Your task to perform on an android device: turn on translation in the chrome app Image 0: 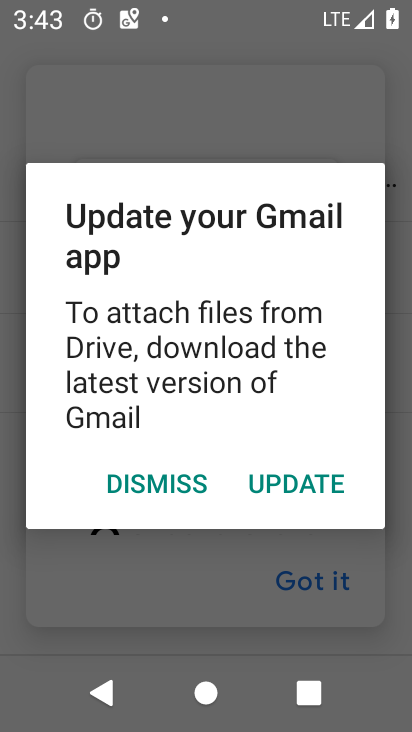
Step 0: press home button
Your task to perform on an android device: turn on translation in the chrome app Image 1: 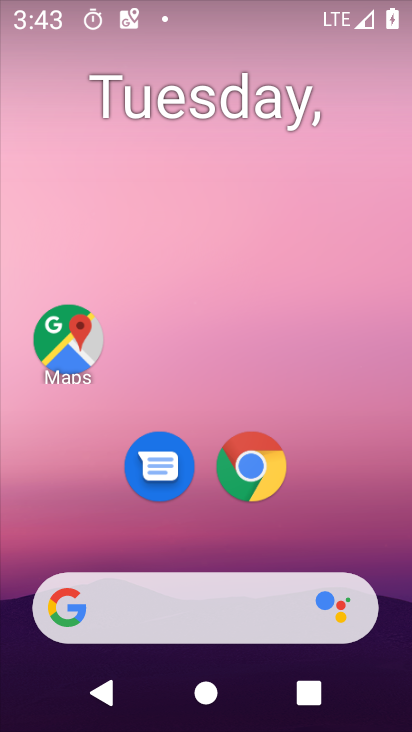
Step 1: drag from (343, 522) to (335, 132)
Your task to perform on an android device: turn on translation in the chrome app Image 2: 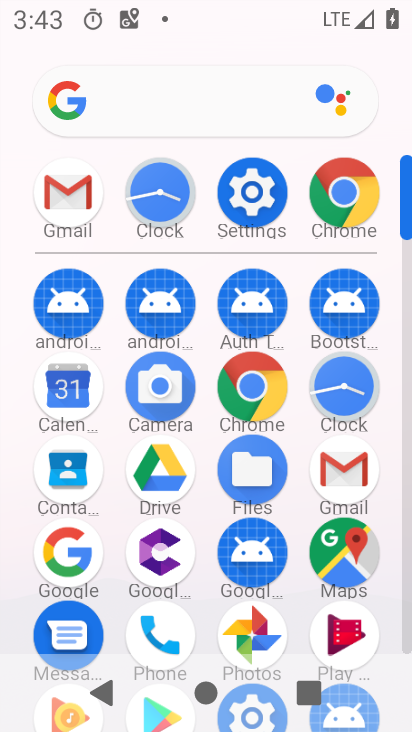
Step 2: click (272, 391)
Your task to perform on an android device: turn on translation in the chrome app Image 3: 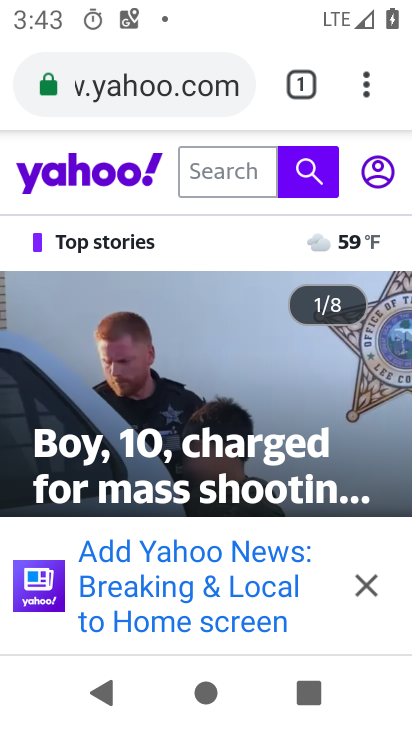
Step 3: click (368, 94)
Your task to perform on an android device: turn on translation in the chrome app Image 4: 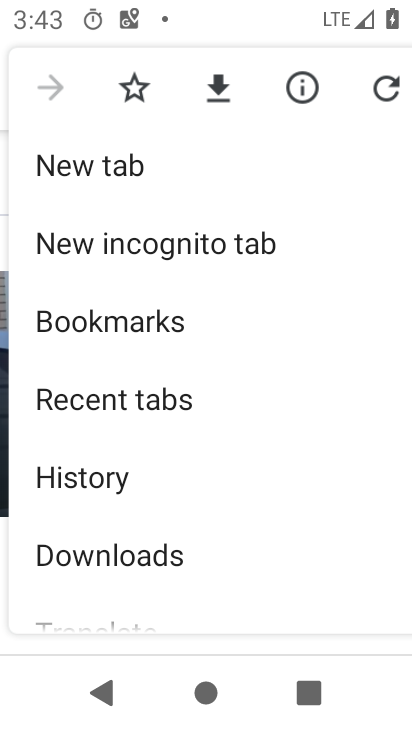
Step 4: drag from (314, 426) to (314, 332)
Your task to perform on an android device: turn on translation in the chrome app Image 5: 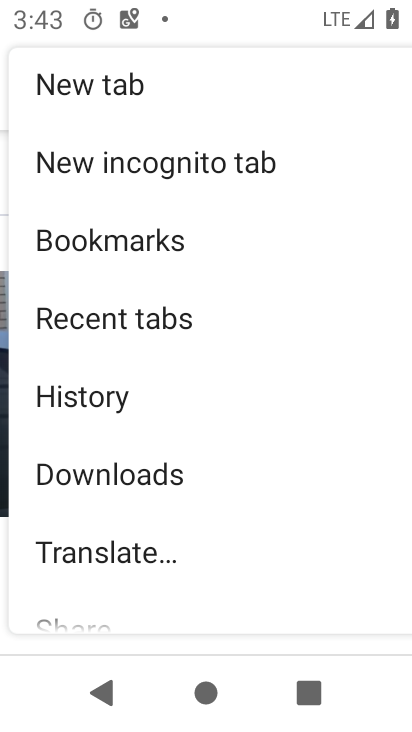
Step 5: drag from (295, 471) to (292, 386)
Your task to perform on an android device: turn on translation in the chrome app Image 6: 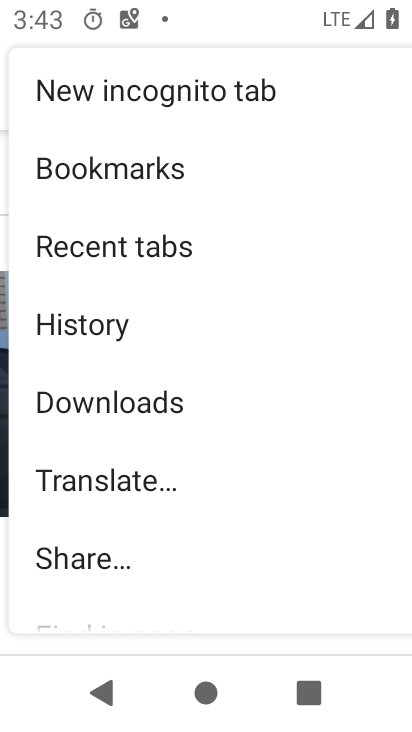
Step 6: drag from (288, 497) to (287, 391)
Your task to perform on an android device: turn on translation in the chrome app Image 7: 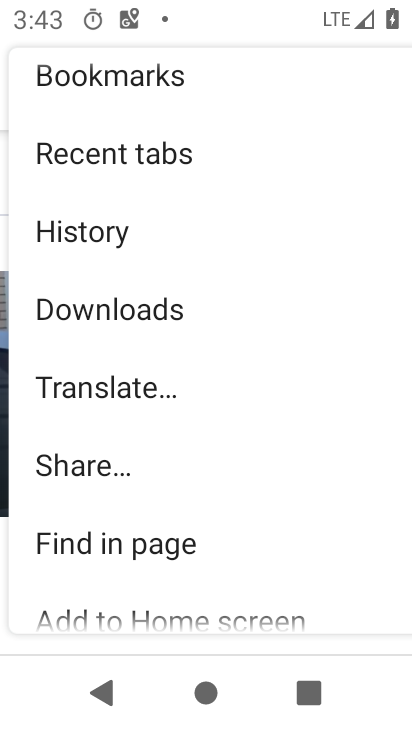
Step 7: drag from (304, 521) to (300, 395)
Your task to perform on an android device: turn on translation in the chrome app Image 8: 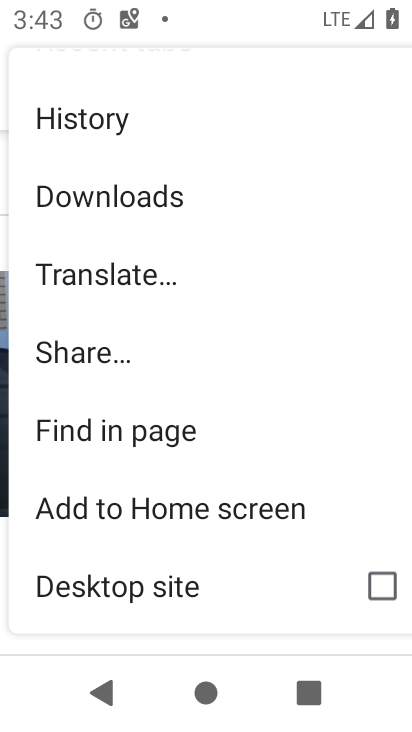
Step 8: drag from (288, 537) to (292, 410)
Your task to perform on an android device: turn on translation in the chrome app Image 9: 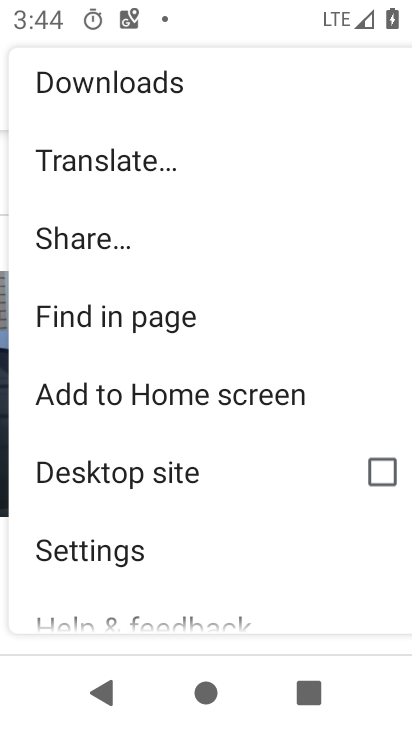
Step 9: drag from (282, 544) to (284, 365)
Your task to perform on an android device: turn on translation in the chrome app Image 10: 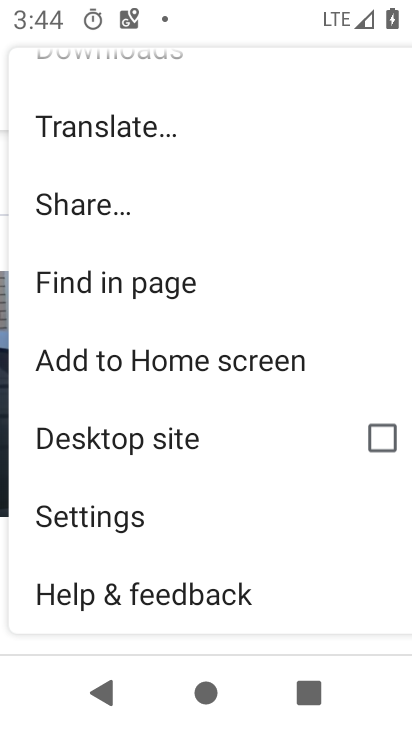
Step 10: click (194, 520)
Your task to perform on an android device: turn on translation in the chrome app Image 11: 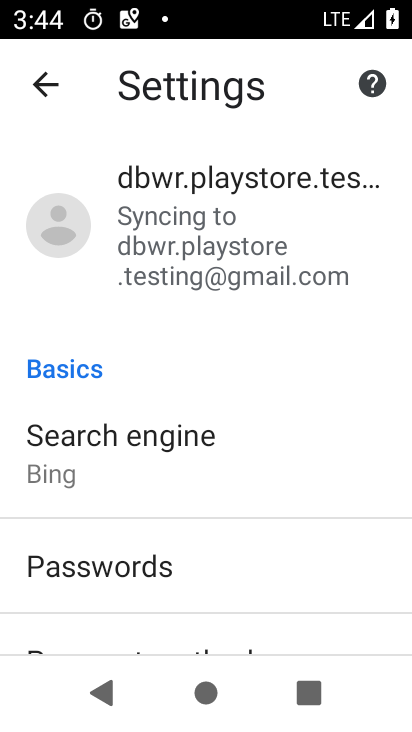
Step 11: drag from (308, 579) to (320, 326)
Your task to perform on an android device: turn on translation in the chrome app Image 12: 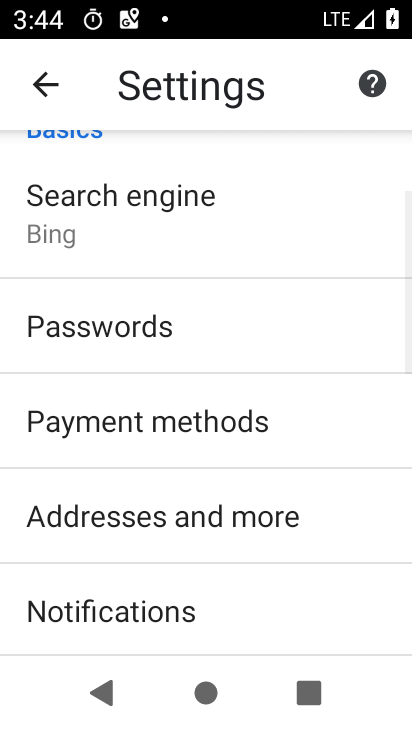
Step 12: drag from (310, 580) to (327, 369)
Your task to perform on an android device: turn on translation in the chrome app Image 13: 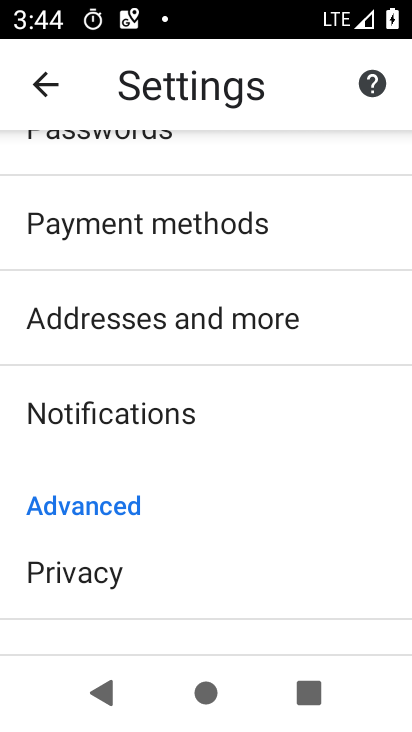
Step 13: drag from (305, 529) to (305, 316)
Your task to perform on an android device: turn on translation in the chrome app Image 14: 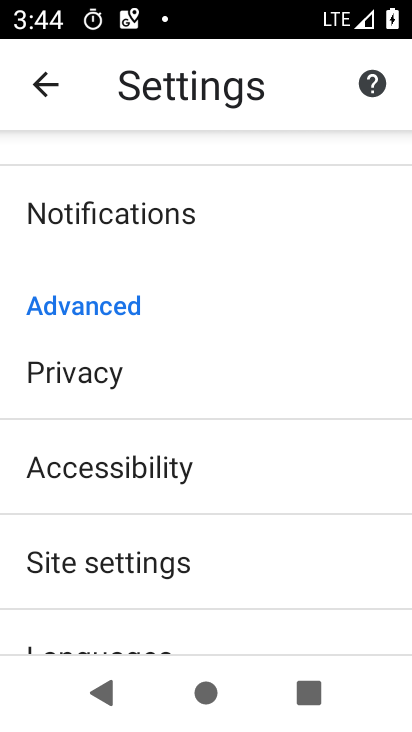
Step 14: drag from (287, 567) to (293, 351)
Your task to perform on an android device: turn on translation in the chrome app Image 15: 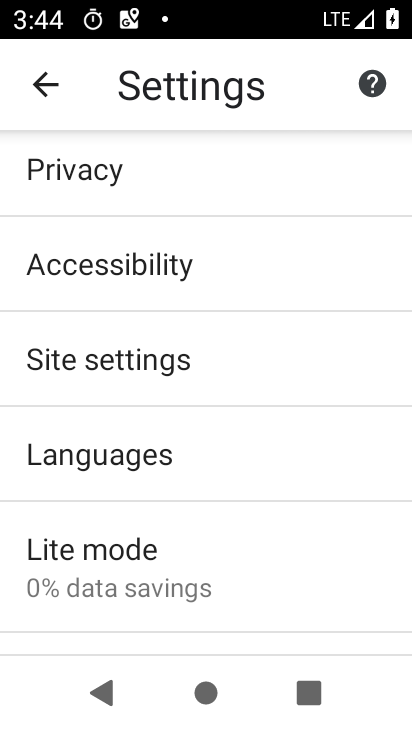
Step 15: click (267, 472)
Your task to perform on an android device: turn on translation in the chrome app Image 16: 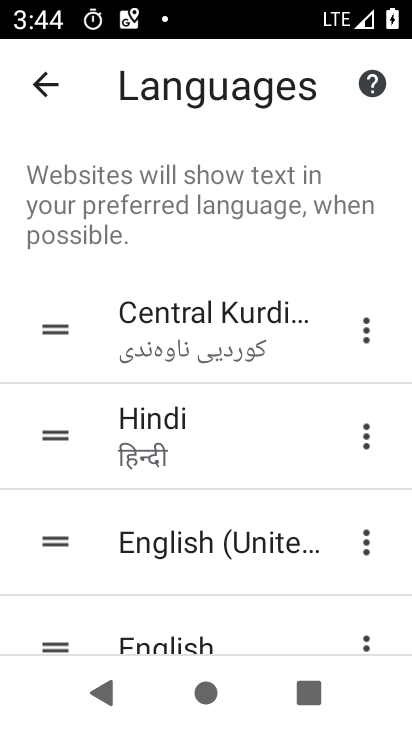
Step 16: drag from (278, 596) to (298, 355)
Your task to perform on an android device: turn on translation in the chrome app Image 17: 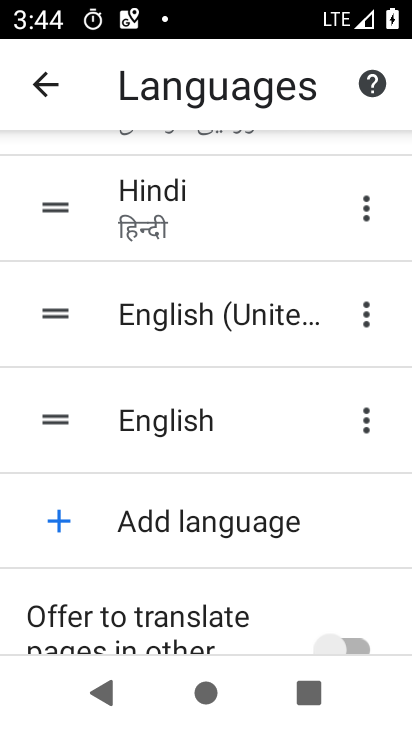
Step 17: drag from (288, 568) to (299, 367)
Your task to perform on an android device: turn on translation in the chrome app Image 18: 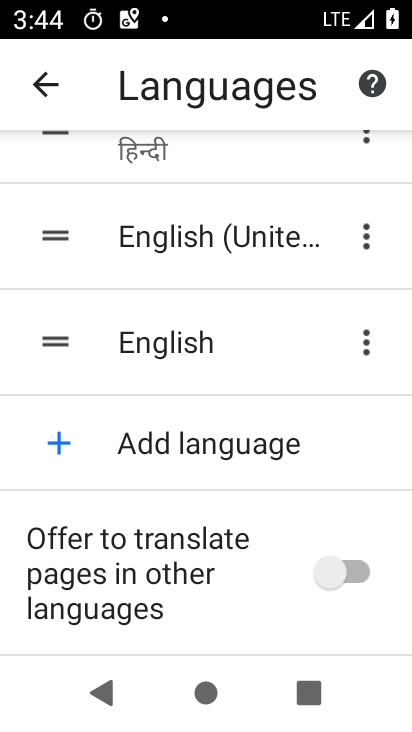
Step 18: click (317, 575)
Your task to perform on an android device: turn on translation in the chrome app Image 19: 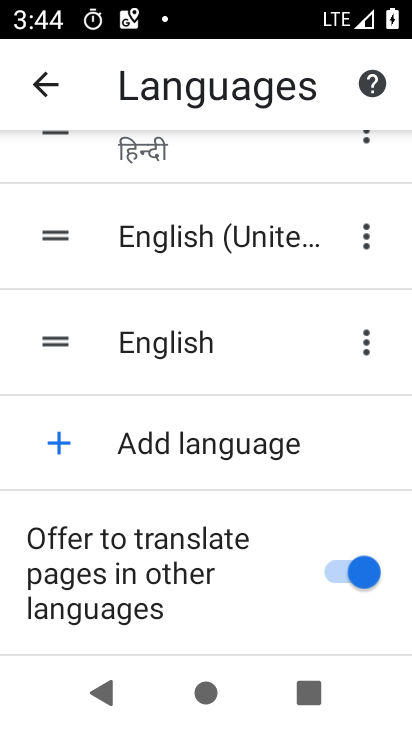
Step 19: task complete